Your task to perform on an android device: set an alarm Image 0: 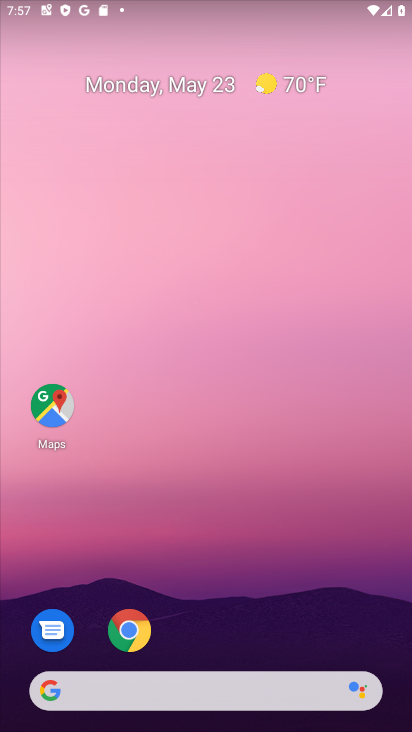
Step 0: drag from (309, 168) to (333, 35)
Your task to perform on an android device: set an alarm Image 1: 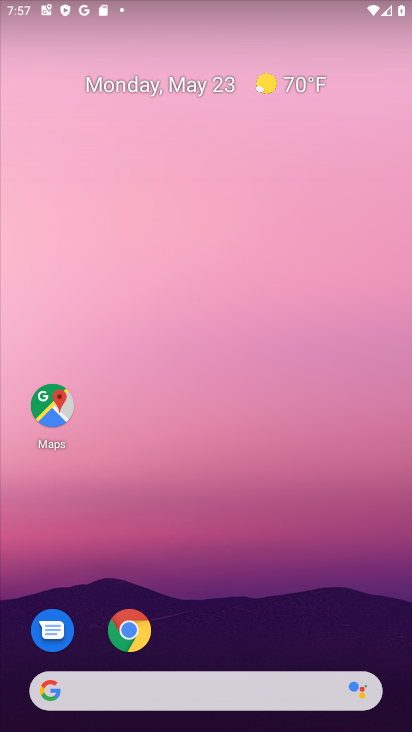
Step 1: drag from (260, 638) to (363, 104)
Your task to perform on an android device: set an alarm Image 2: 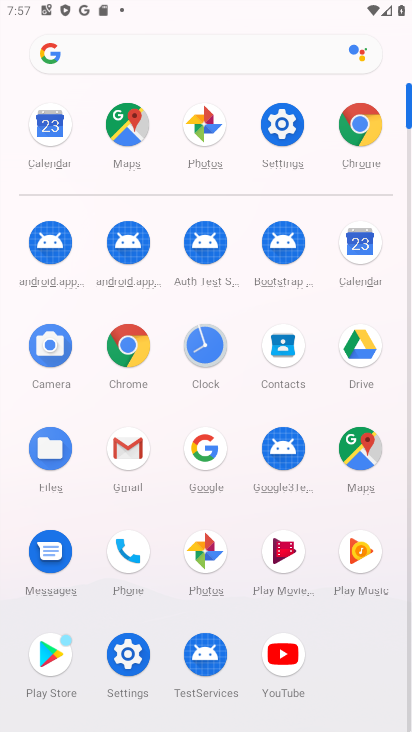
Step 2: click (207, 352)
Your task to perform on an android device: set an alarm Image 3: 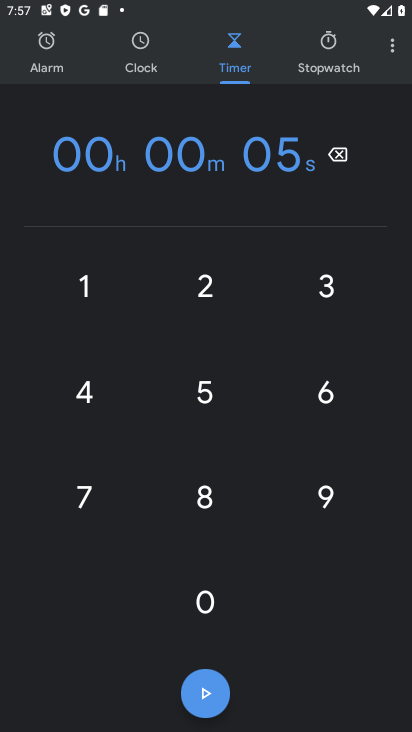
Step 3: click (60, 57)
Your task to perform on an android device: set an alarm Image 4: 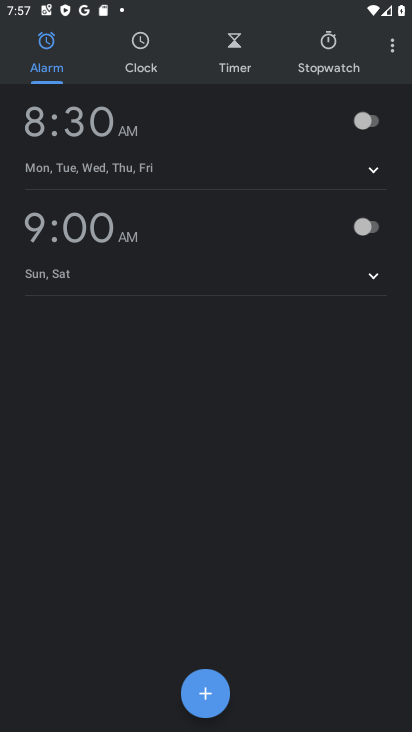
Step 4: click (205, 698)
Your task to perform on an android device: set an alarm Image 5: 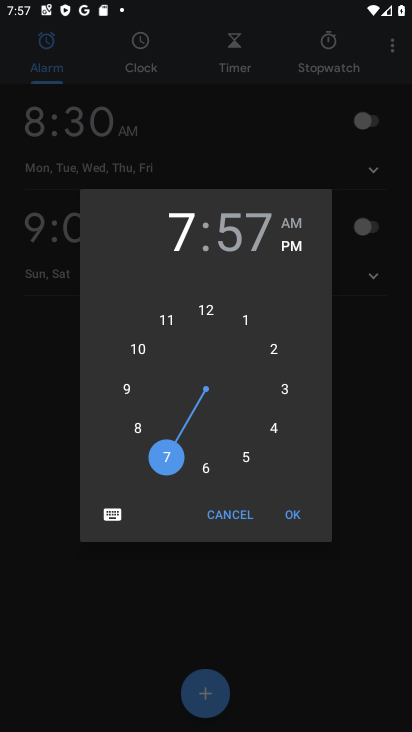
Step 5: click (297, 519)
Your task to perform on an android device: set an alarm Image 6: 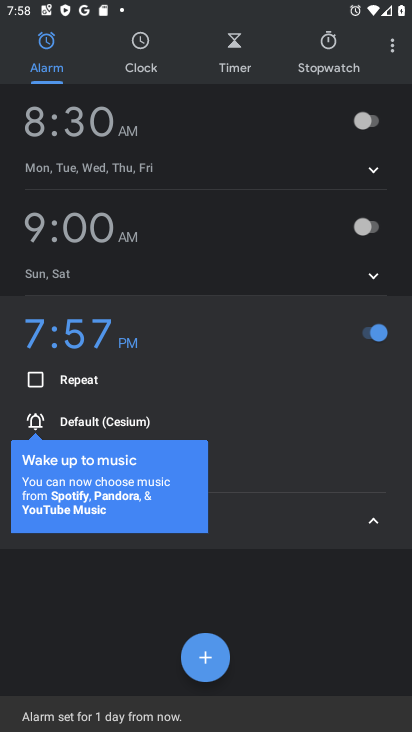
Step 6: task complete